Your task to perform on an android device: Go to ESPN.com Image 0: 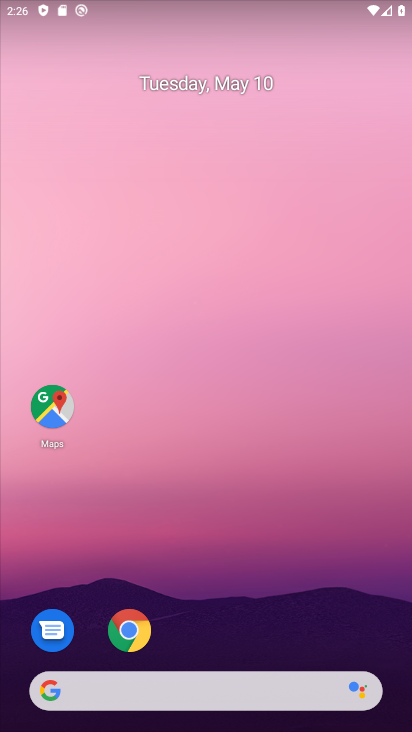
Step 0: click (135, 638)
Your task to perform on an android device: Go to ESPN.com Image 1: 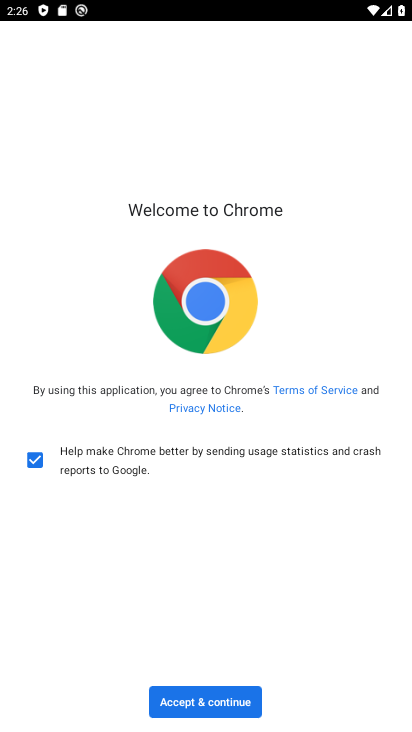
Step 1: click (222, 695)
Your task to perform on an android device: Go to ESPN.com Image 2: 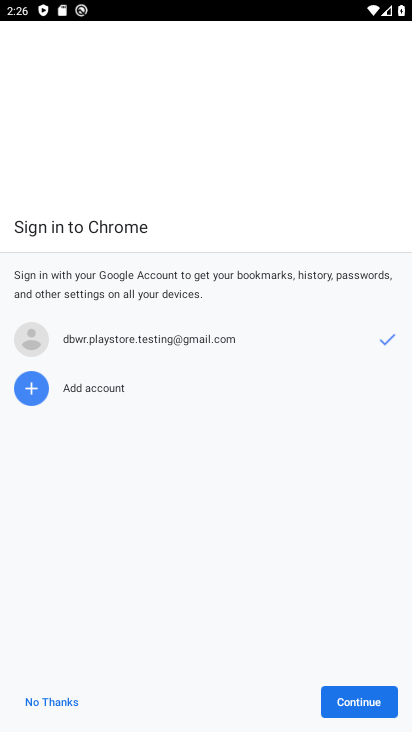
Step 2: click (380, 712)
Your task to perform on an android device: Go to ESPN.com Image 3: 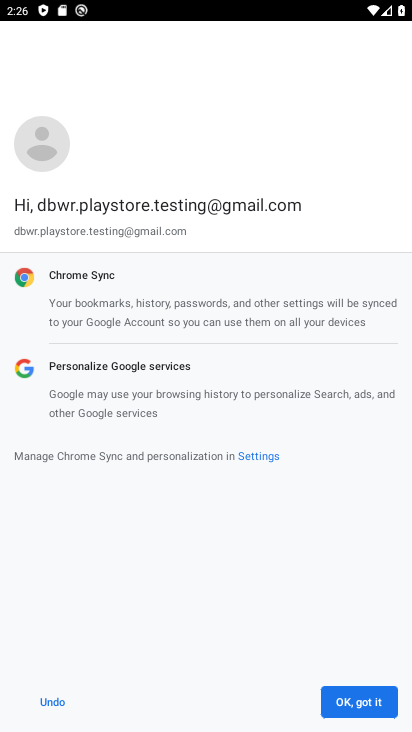
Step 3: click (377, 709)
Your task to perform on an android device: Go to ESPN.com Image 4: 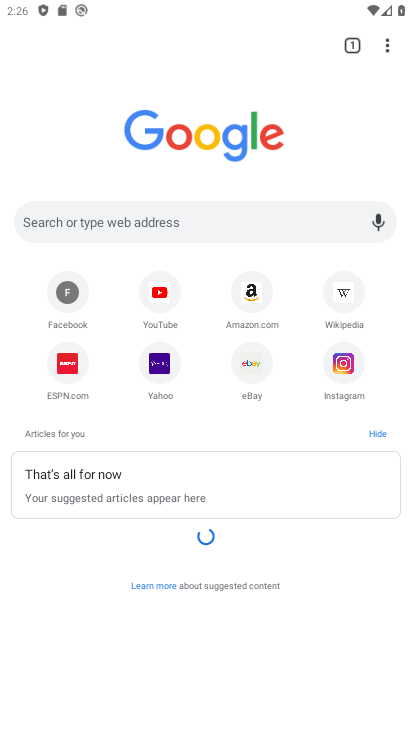
Step 4: click (69, 364)
Your task to perform on an android device: Go to ESPN.com Image 5: 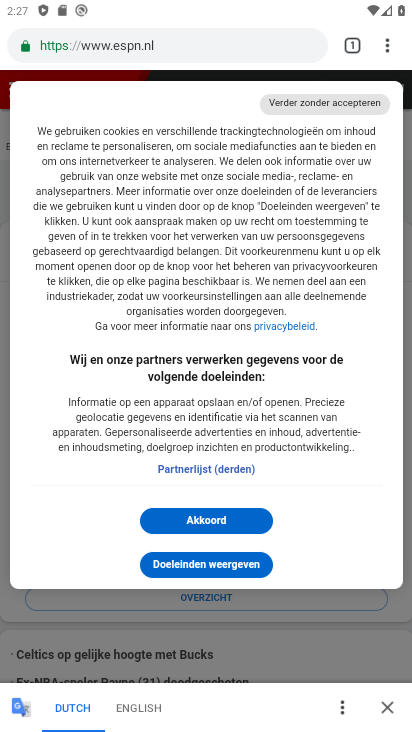
Step 5: click (225, 525)
Your task to perform on an android device: Go to ESPN.com Image 6: 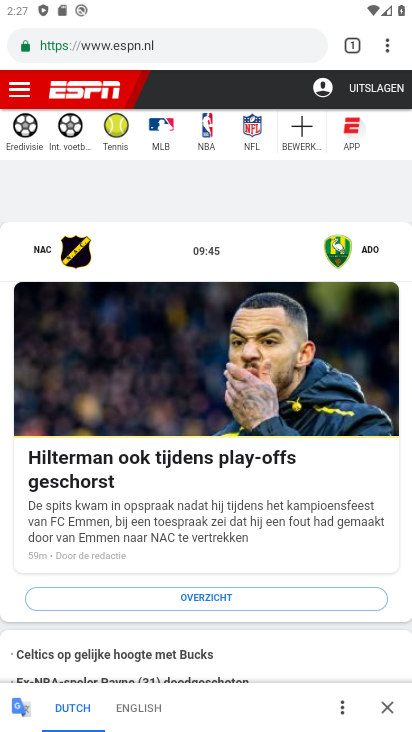
Step 6: task complete